Your task to perform on an android device: all mails in gmail Image 0: 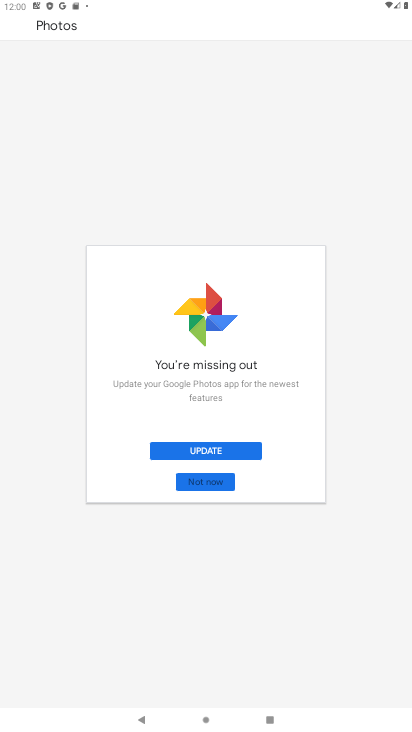
Step 0: press home button
Your task to perform on an android device: all mails in gmail Image 1: 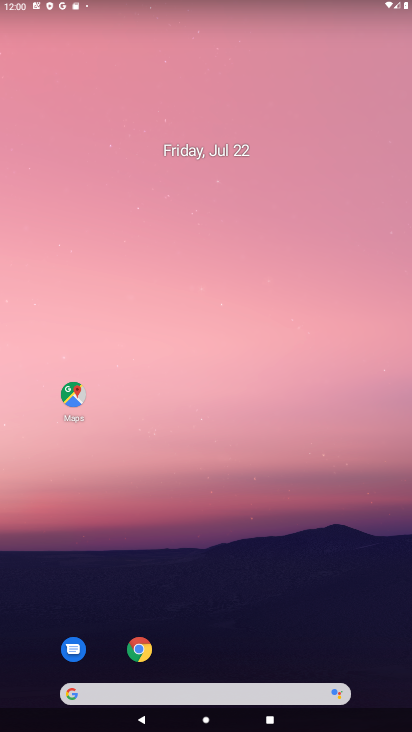
Step 1: drag from (241, 724) to (222, 322)
Your task to perform on an android device: all mails in gmail Image 2: 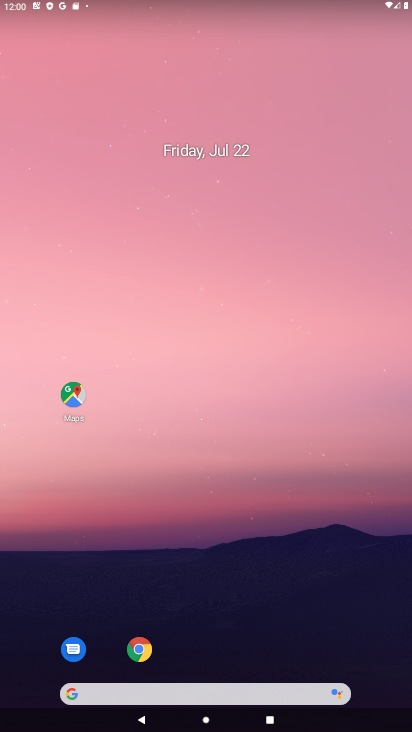
Step 2: drag from (224, 728) to (186, 28)
Your task to perform on an android device: all mails in gmail Image 3: 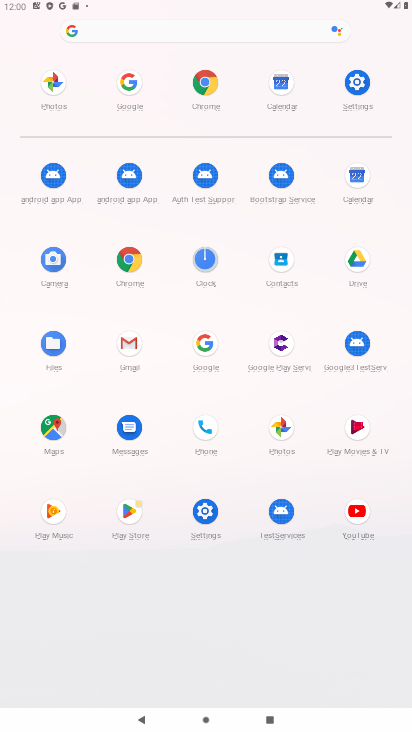
Step 3: click (127, 342)
Your task to perform on an android device: all mails in gmail Image 4: 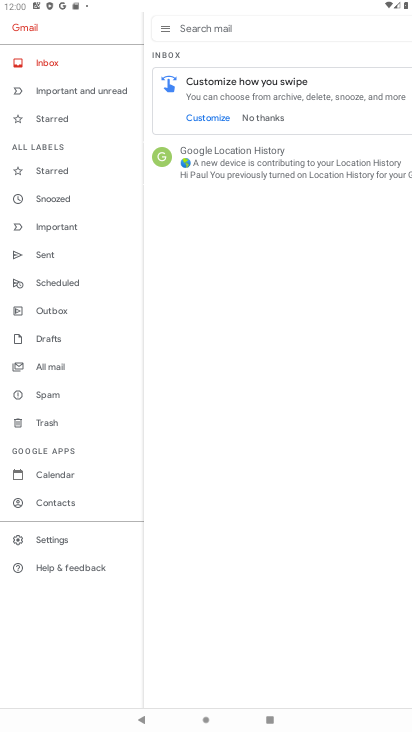
Step 4: click (52, 366)
Your task to perform on an android device: all mails in gmail Image 5: 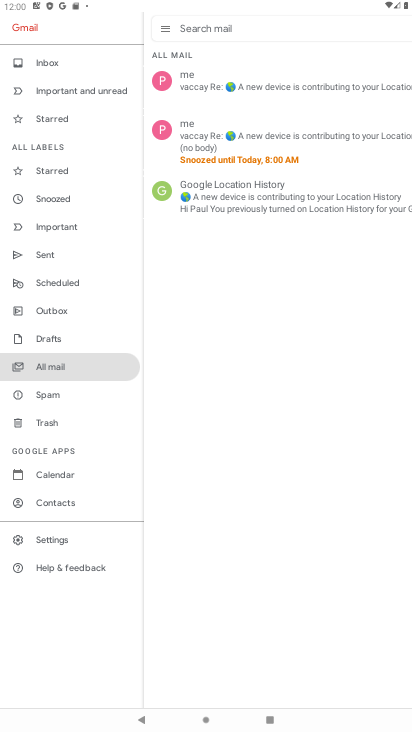
Step 5: click (34, 363)
Your task to perform on an android device: all mails in gmail Image 6: 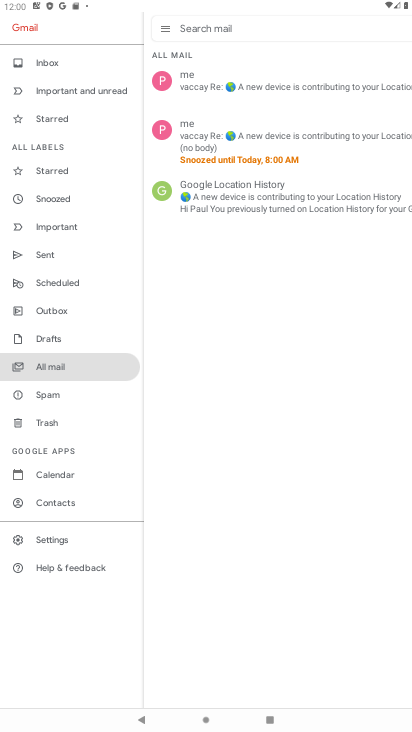
Step 6: task complete